Your task to perform on an android device: Open calendar and show me the second week of next month Image 0: 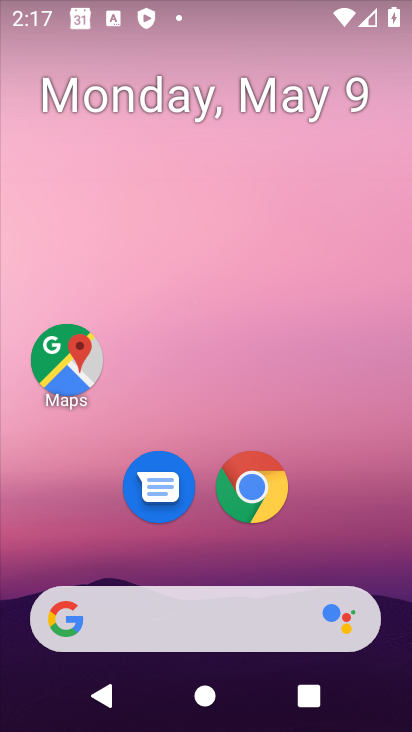
Step 0: click (263, 501)
Your task to perform on an android device: Open calendar and show me the second week of next month Image 1: 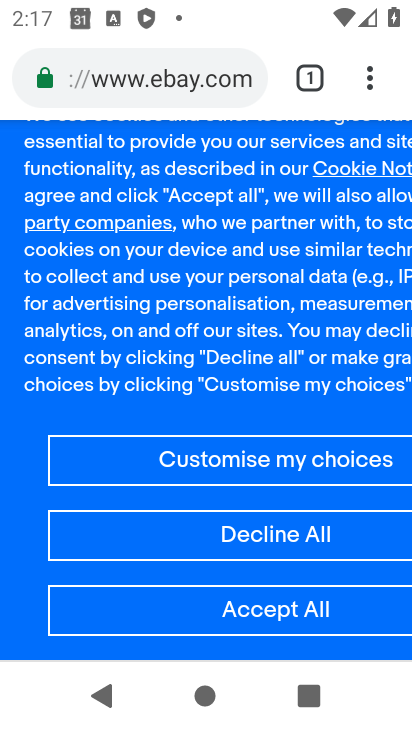
Step 1: press home button
Your task to perform on an android device: Open calendar and show me the second week of next month Image 2: 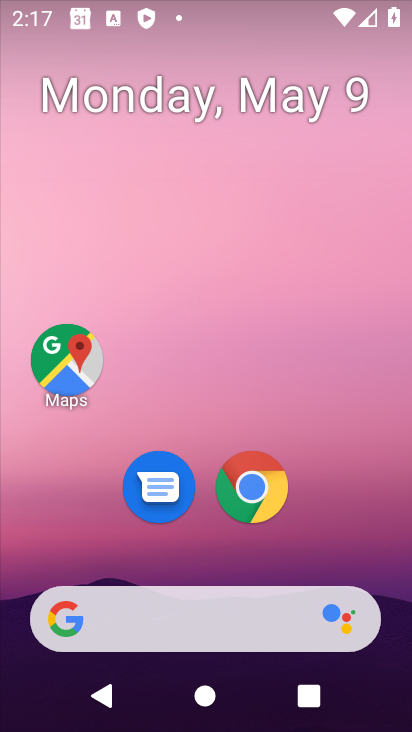
Step 2: drag from (239, 513) to (236, 145)
Your task to perform on an android device: Open calendar and show me the second week of next month Image 3: 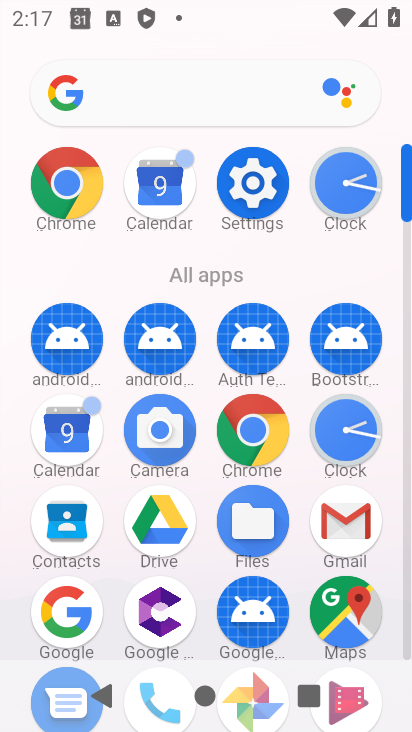
Step 3: click (62, 420)
Your task to perform on an android device: Open calendar and show me the second week of next month Image 4: 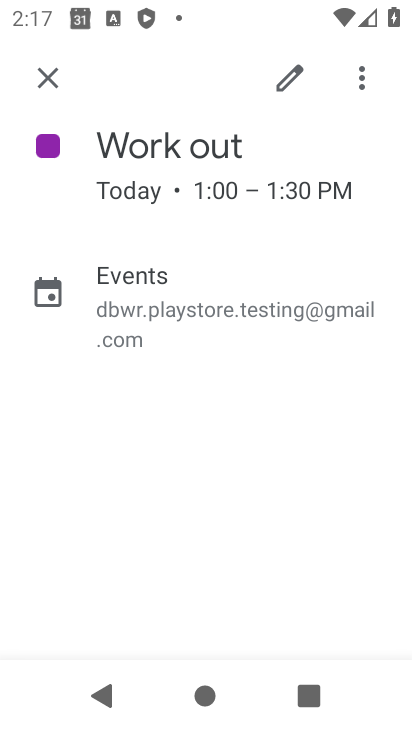
Step 4: click (43, 74)
Your task to perform on an android device: Open calendar and show me the second week of next month Image 5: 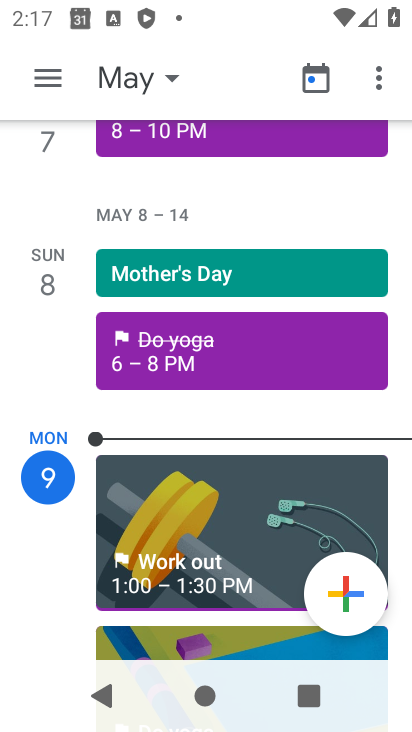
Step 5: click (43, 76)
Your task to perform on an android device: Open calendar and show me the second week of next month Image 6: 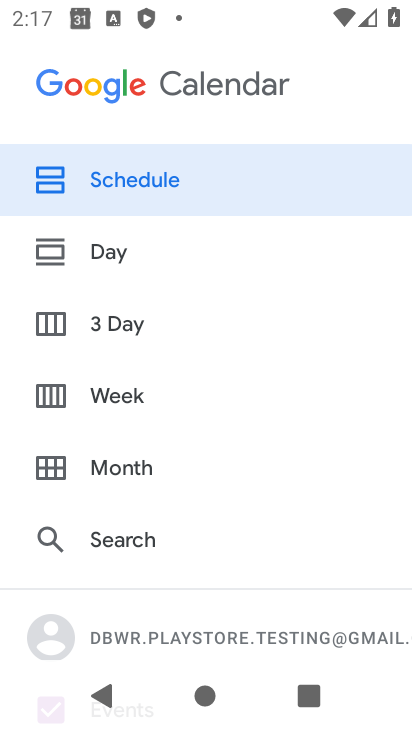
Step 6: click (87, 467)
Your task to perform on an android device: Open calendar and show me the second week of next month Image 7: 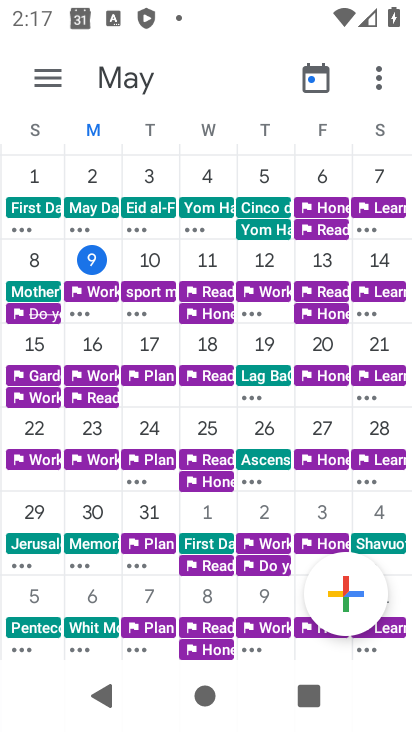
Step 7: drag from (338, 417) to (27, 450)
Your task to perform on an android device: Open calendar and show me the second week of next month Image 8: 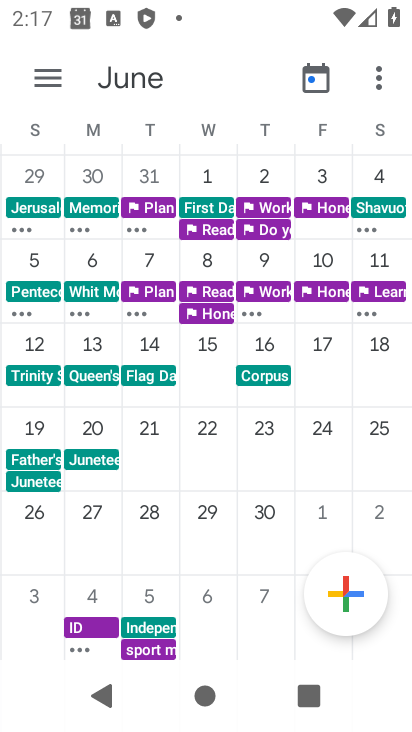
Step 8: click (35, 255)
Your task to perform on an android device: Open calendar and show me the second week of next month Image 9: 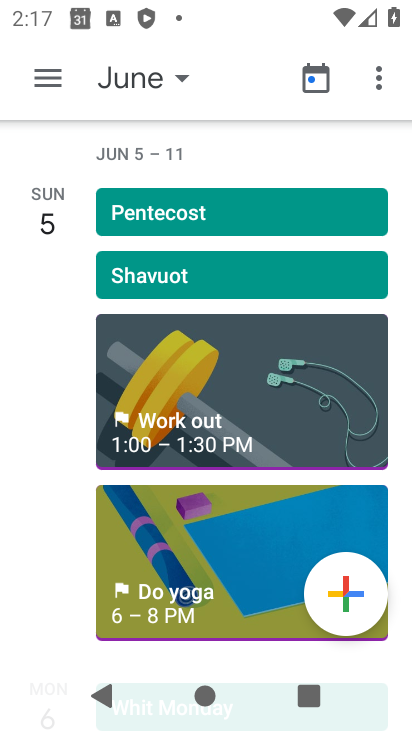
Step 9: click (48, 66)
Your task to perform on an android device: Open calendar and show me the second week of next month Image 10: 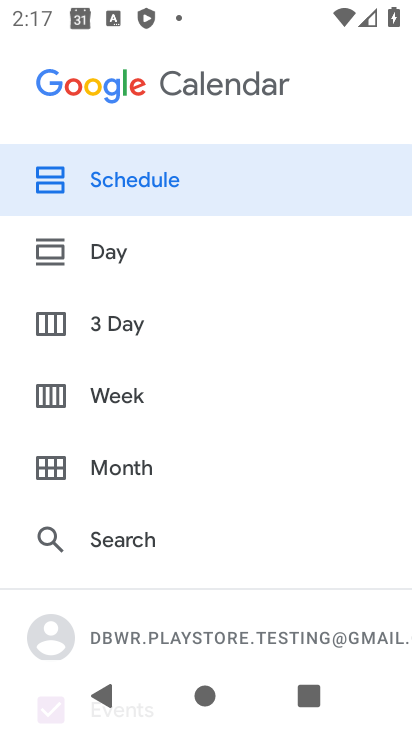
Step 10: click (51, 400)
Your task to perform on an android device: Open calendar and show me the second week of next month Image 11: 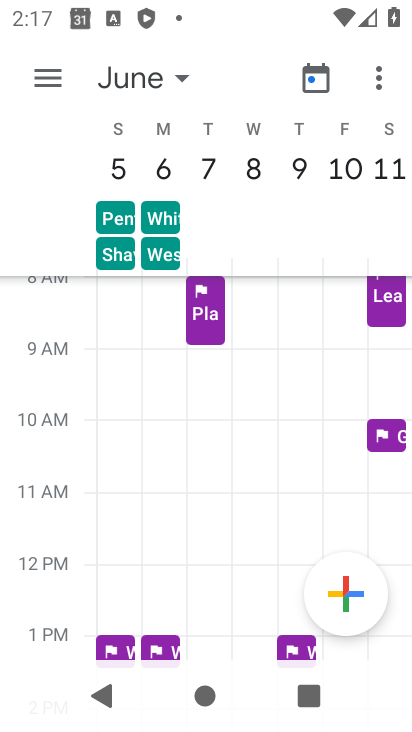
Step 11: task complete